Your task to perform on an android device: delete location history Image 0: 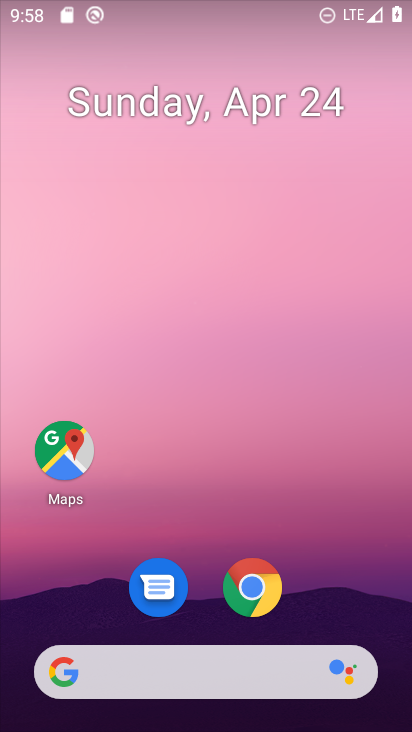
Step 0: drag from (390, 589) to (370, 175)
Your task to perform on an android device: delete location history Image 1: 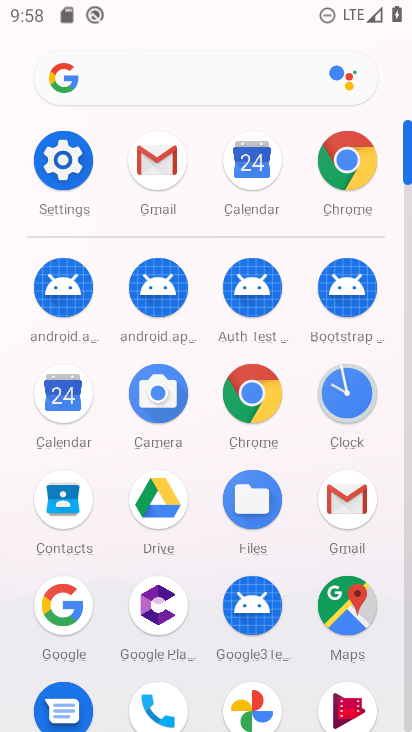
Step 1: click (72, 170)
Your task to perform on an android device: delete location history Image 2: 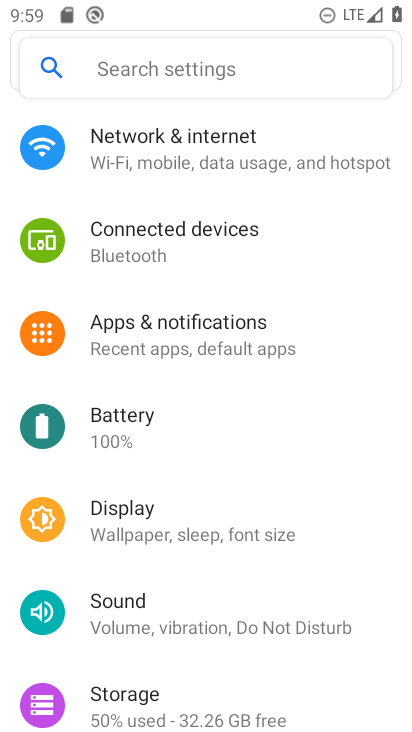
Step 2: drag from (344, 656) to (353, 273)
Your task to perform on an android device: delete location history Image 3: 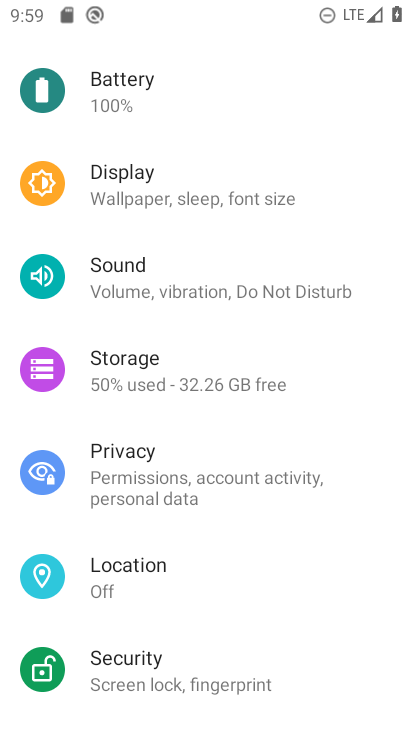
Step 3: click (121, 560)
Your task to perform on an android device: delete location history Image 4: 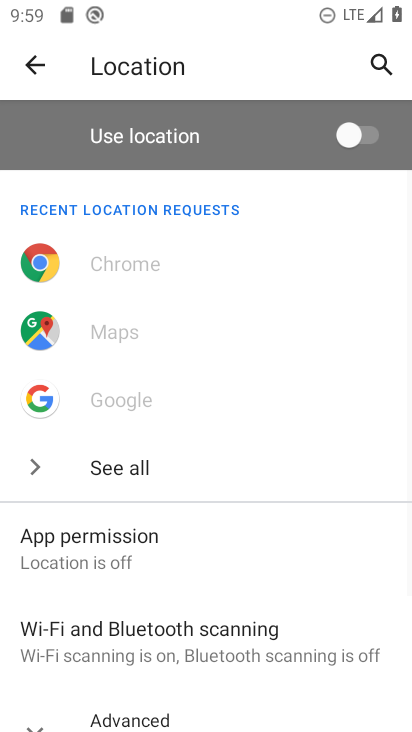
Step 4: drag from (226, 565) to (257, 288)
Your task to perform on an android device: delete location history Image 5: 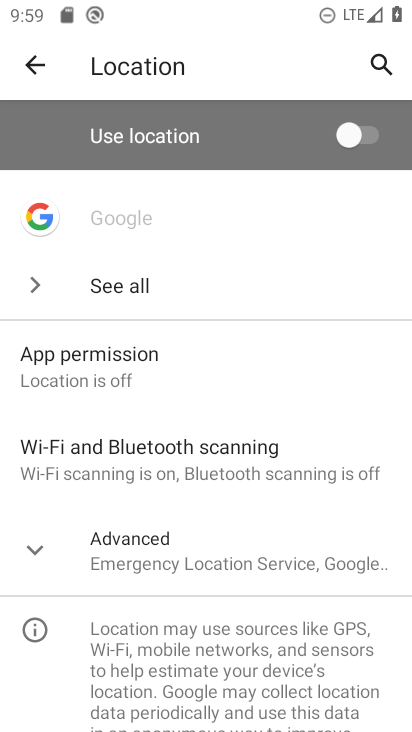
Step 5: click (200, 536)
Your task to perform on an android device: delete location history Image 6: 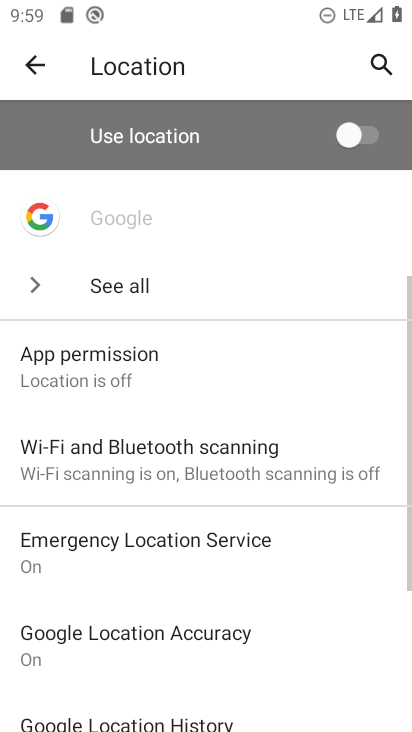
Step 6: drag from (292, 605) to (308, 406)
Your task to perform on an android device: delete location history Image 7: 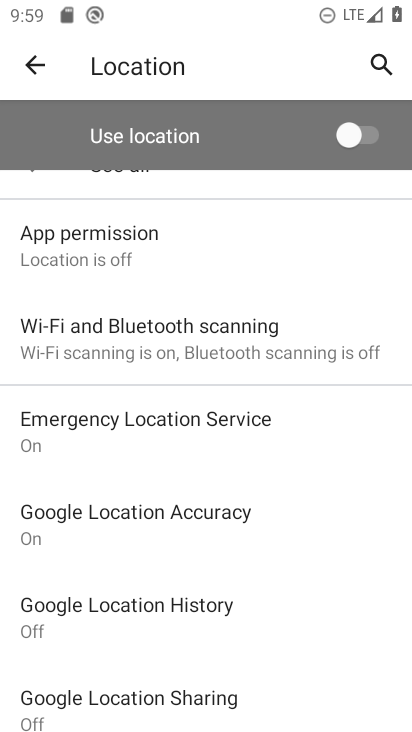
Step 7: click (154, 608)
Your task to perform on an android device: delete location history Image 8: 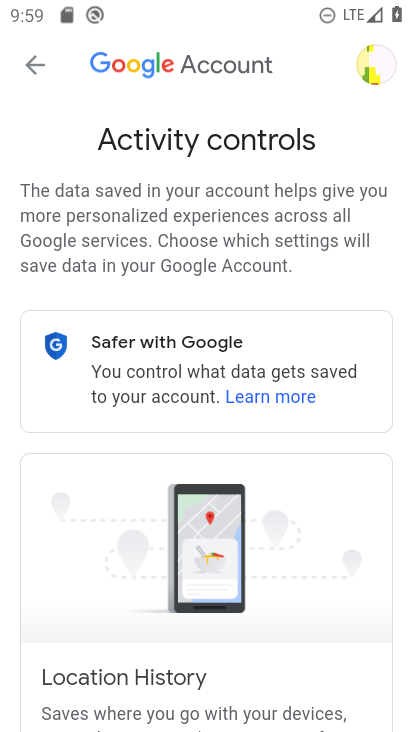
Step 8: drag from (257, 677) to (301, 330)
Your task to perform on an android device: delete location history Image 9: 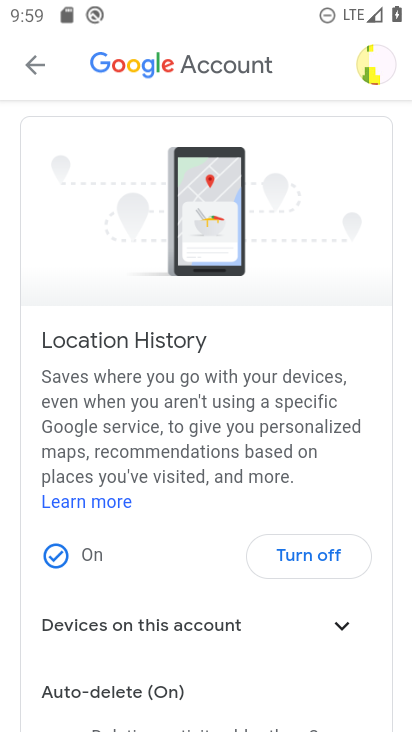
Step 9: drag from (217, 663) to (199, 359)
Your task to perform on an android device: delete location history Image 10: 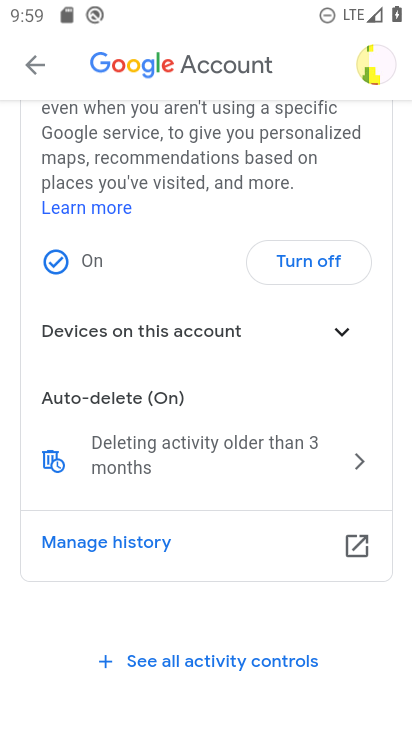
Step 10: click (121, 548)
Your task to perform on an android device: delete location history Image 11: 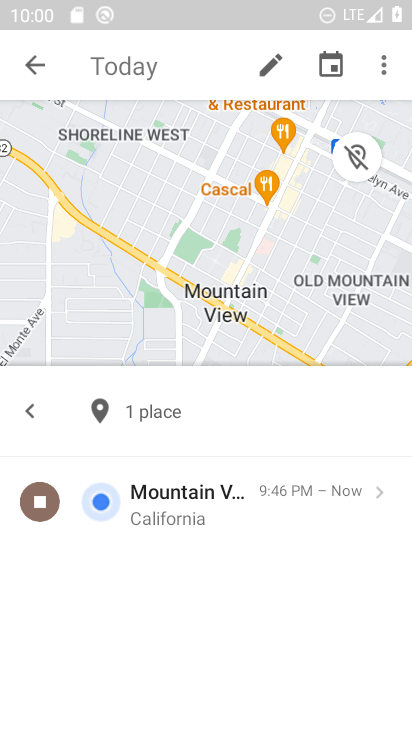
Step 11: click (385, 68)
Your task to perform on an android device: delete location history Image 12: 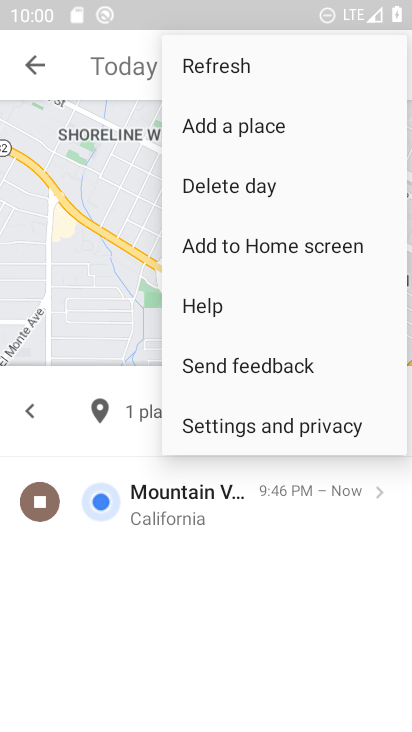
Step 12: click (237, 435)
Your task to perform on an android device: delete location history Image 13: 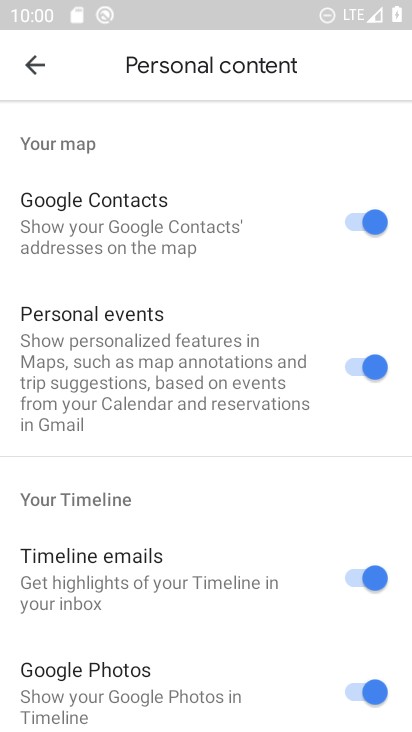
Step 13: drag from (221, 641) to (230, 286)
Your task to perform on an android device: delete location history Image 14: 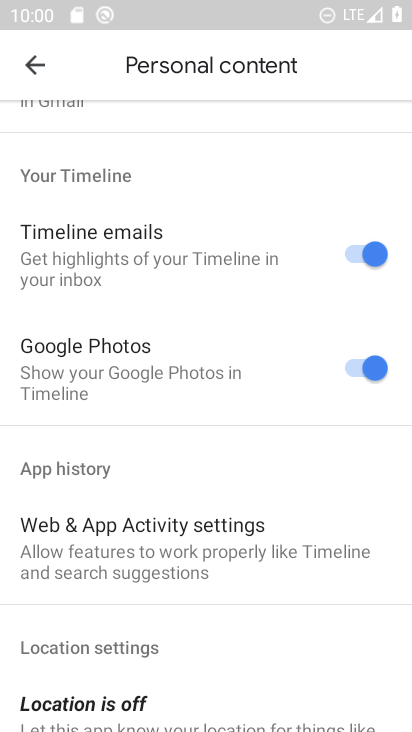
Step 14: drag from (205, 618) to (205, 250)
Your task to perform on an android device: delete location history Image 15: 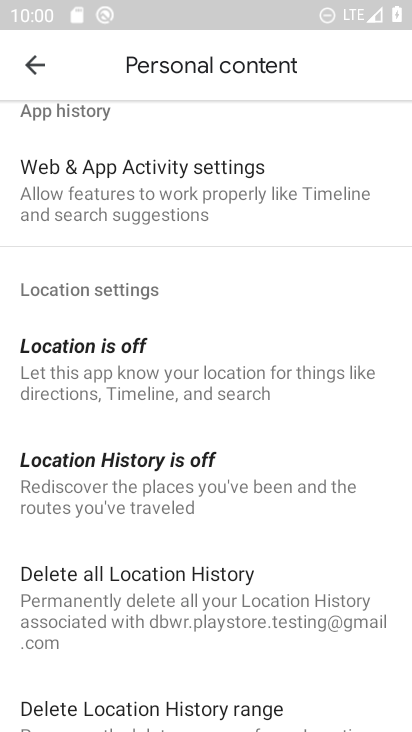
Step 15: click (169, 597)
Your task to perform on an android device: delete location history Image 16: 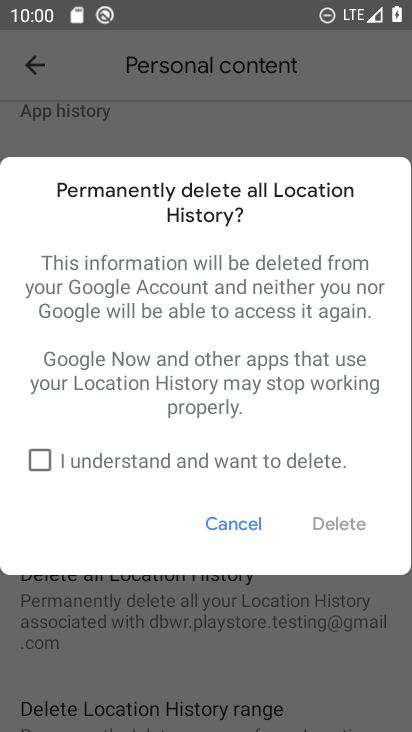
Step 16: click (43, 467)
Your task to perform on an android device: delete location history Image 17: 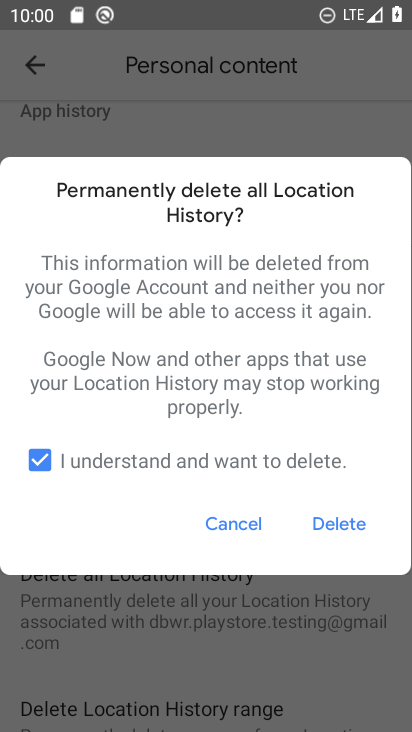
Step 17: click (340, 527)
Your task to perform on an android device: delete location history Image 18: 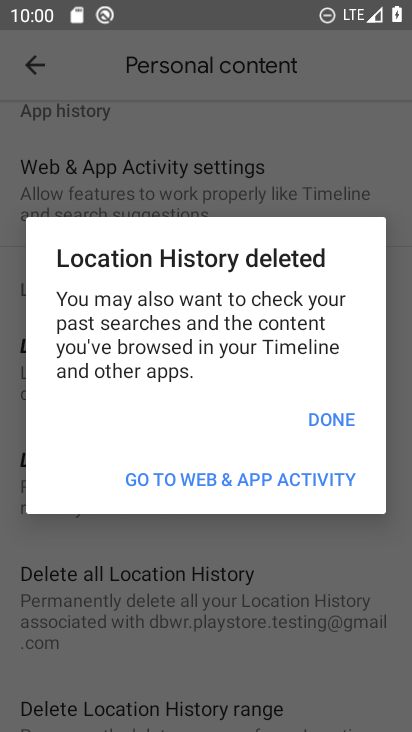
Step 18: task complete